Your task to perform on an android device: What's on my calendar tomorrow? Image 0: 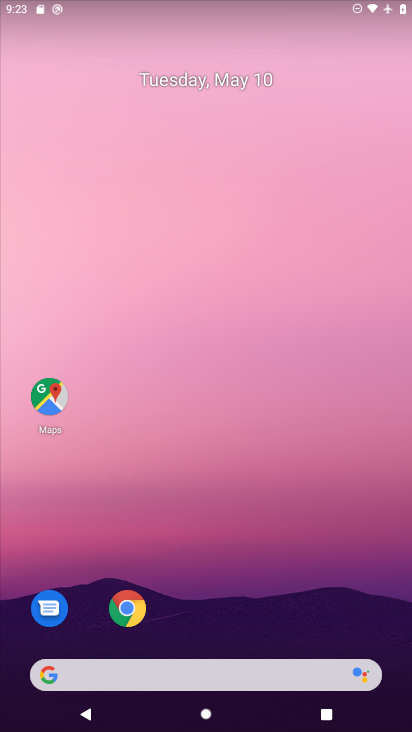
Step 0: drag from (284, 616) to (327, 238)
Your task to perform on an android device: What's on my calendar tomorrow? Image 1: 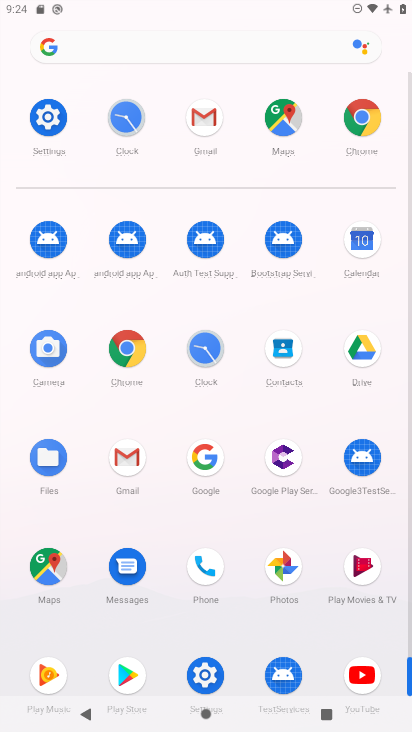
Step 1: click (356, 239)
Your task to perform on an android device: What's on my calendar tomorrow? Image 2: 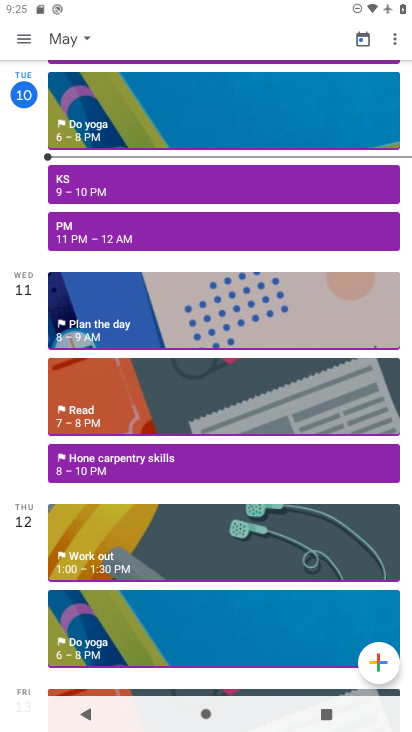
Step 2: task complete